Your task to perform on an android device: find snoozed emails in the gmail app Image 0: 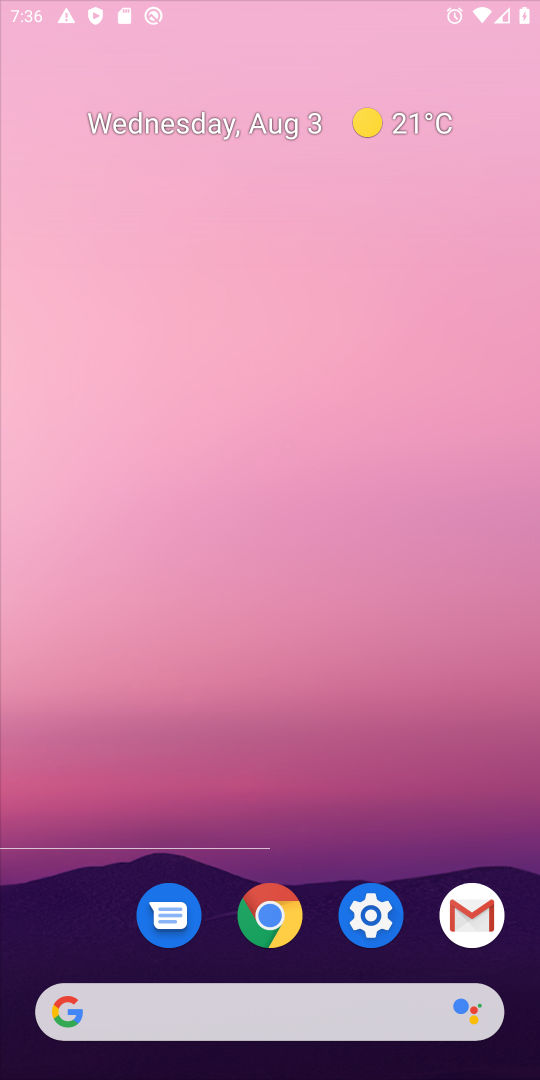
Step 0: press home button
Your task to perform on an android device: find snoozed emails in the gmail app Image 1: 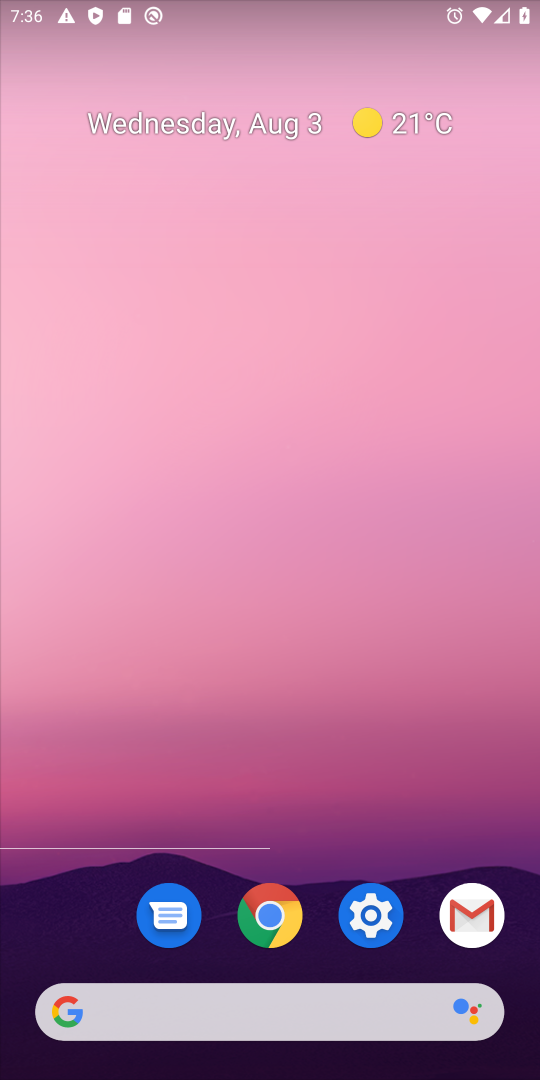
Step 1: drag from (301, 1052) to (350, 358)
Your task to perform on an android device: find snoozed emails in the gmail app Image 2: 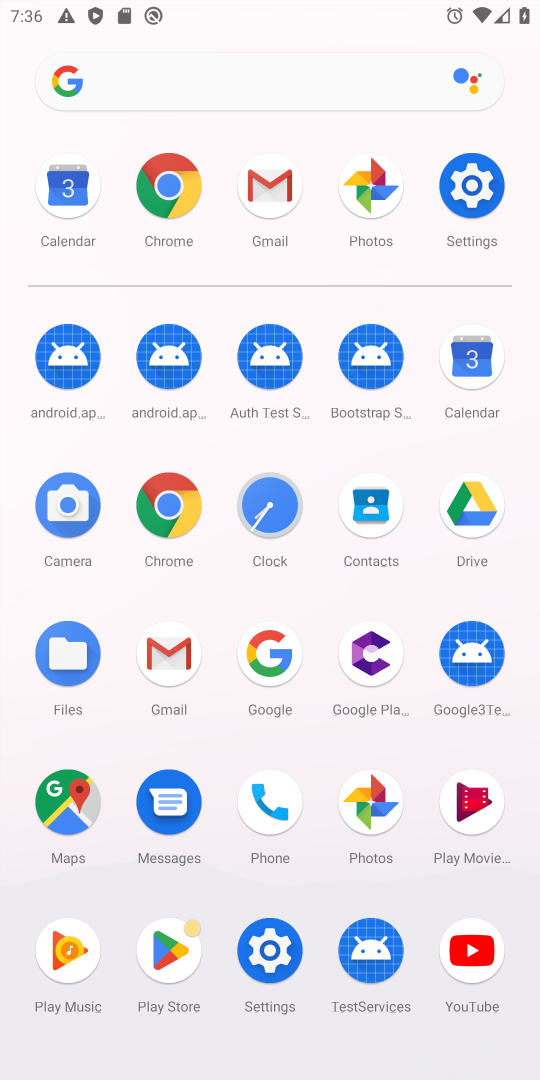
Step 2: click (281, 182)
Your task to perform on an android device: find snoozed emails in the gmail app Image 3: 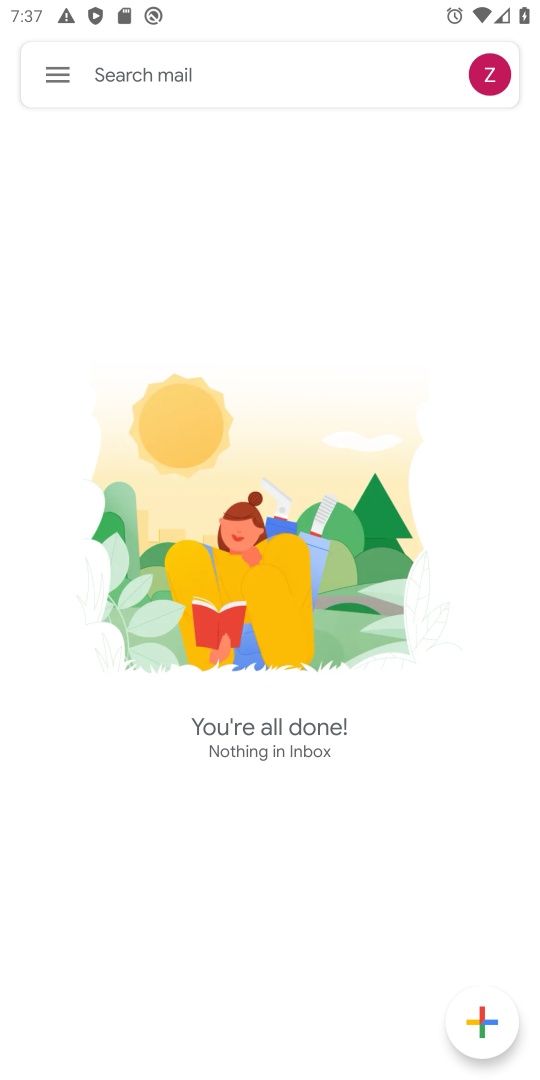
Step 3: click (43, 63)
Your task to perform on an android device: find snoozed emails in the gmail app Image 4: 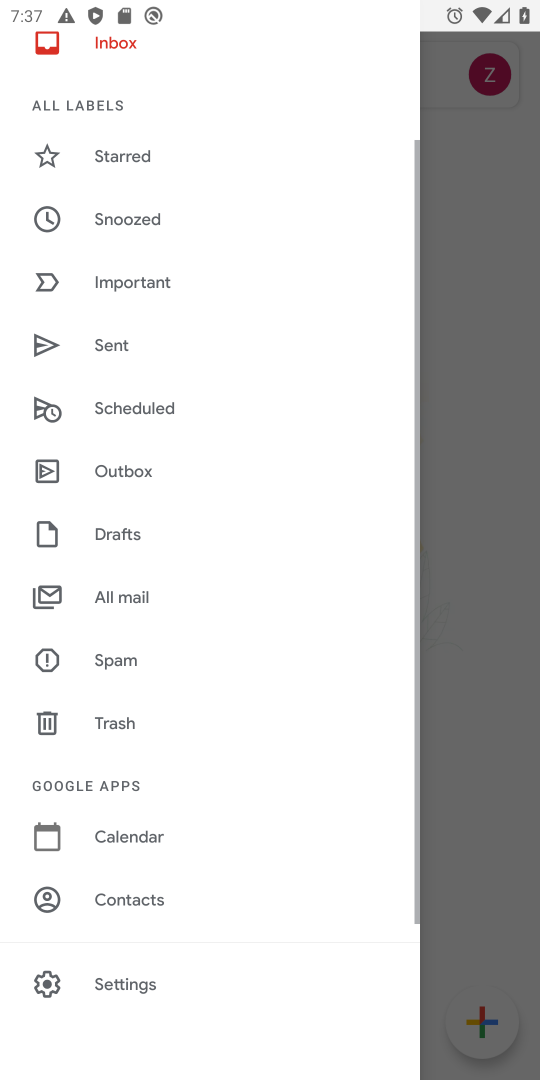
Step 4: click (174, 218)
Your task to perform on an android device: find snoozed emails in the gmail app Image 5: 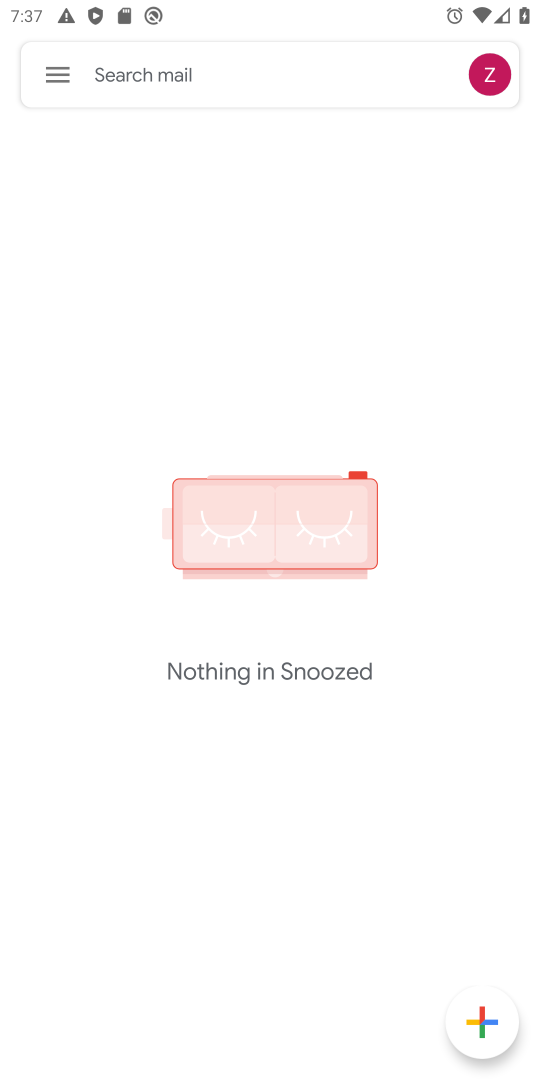
Step 5: task complete